Your task to perform on an android device: toggle translation in the chrome app Image 0: 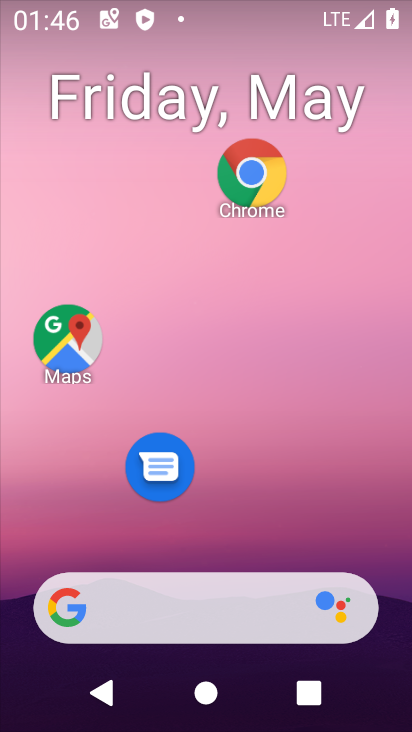
Step 0: press home button
Your task to perform on an android device: toggle translation in the chrome app Image 1: 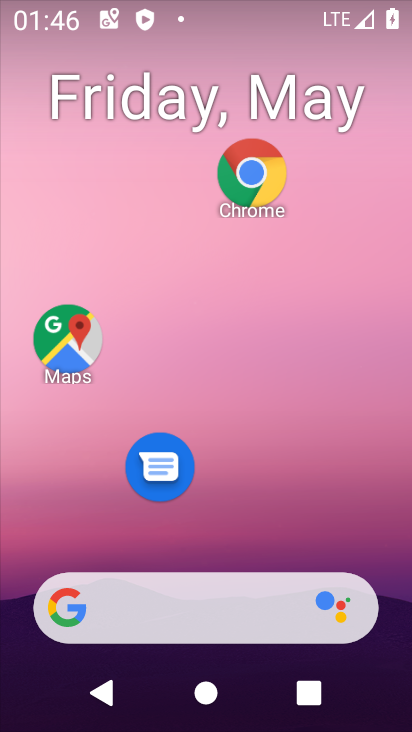
Step 1: drag from (255, 651) to (318, 246)
Your task to perform on an android device: toggle translation in the chrome app Image 2: 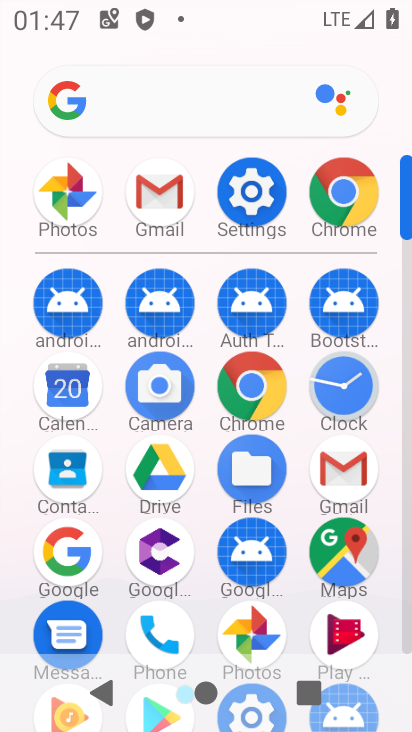
Step 2: click (270, 396)
Your task to perform on an android device: toggle translation in the chrome app Image 3: 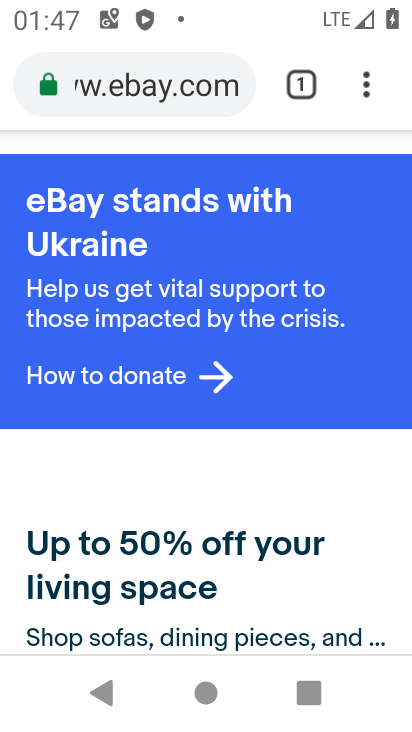
Step 3: click (357, 93)
Your task to perform on an android device: toggle translation in the chrome app Image 4: 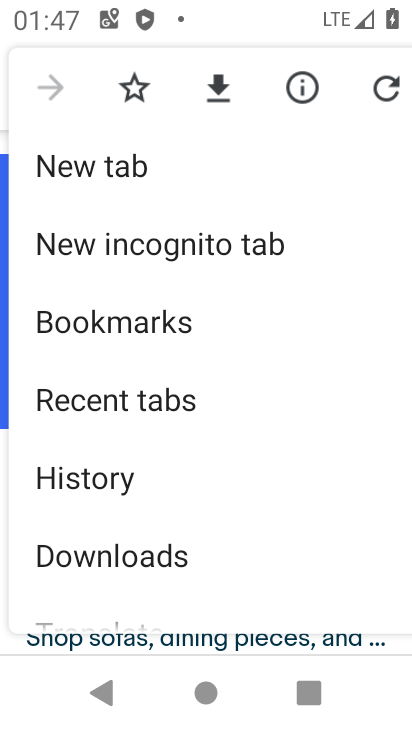
Step 4: drag from (244, 481) to (223, 318)
Your task to perform on an android device: toggle translation in the chrome app Image 5: 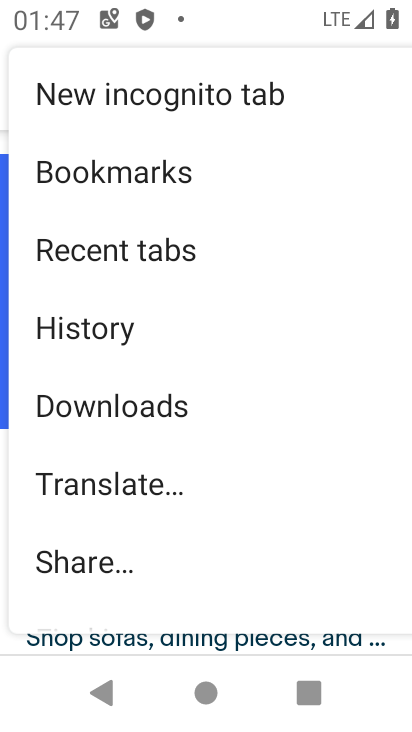
Step 5: drag from (211, 537) to (238, 426)
Your task to perform on an android device: toggle translation in the chrome app Image 6: 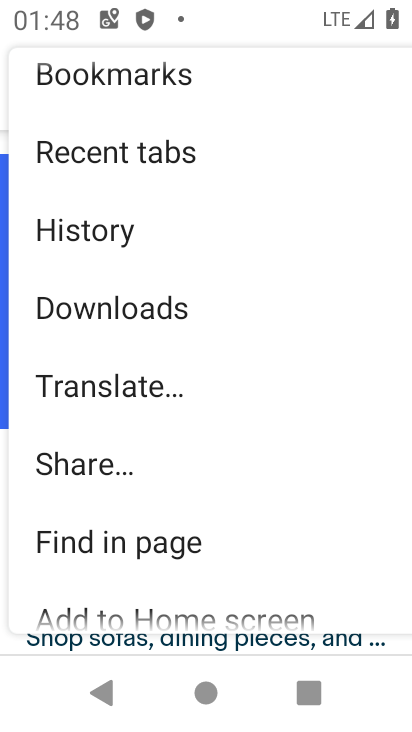
Step 6: drag from (237, 464) to (269, 341)
Your task to perform on an android device: toggle translation in the chrome app Image 7: 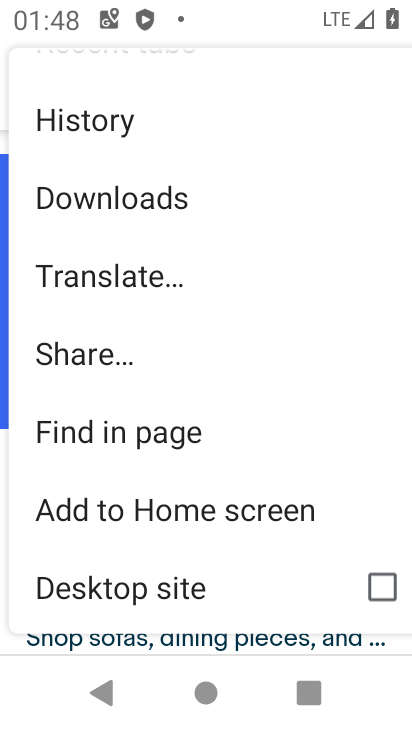
Step 7: drag from (178, 532) to (178, 361)
Your task to perform on an android device: toggle translation in the chrome app Image 8: 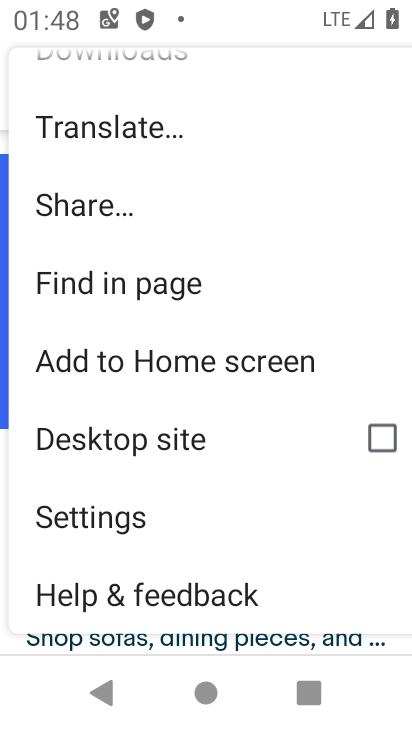
Step 8: click (138, 513)
Your task to perform on an android device: toggle translation in the chrome app Image 9: 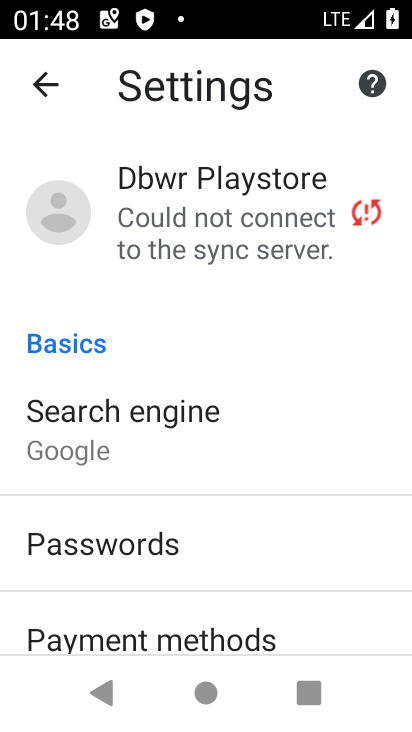
Step 9: drag from (148, 555) to (168, 343)
Your task to perform on an android device: toggle translation in the chrome app Image 10: 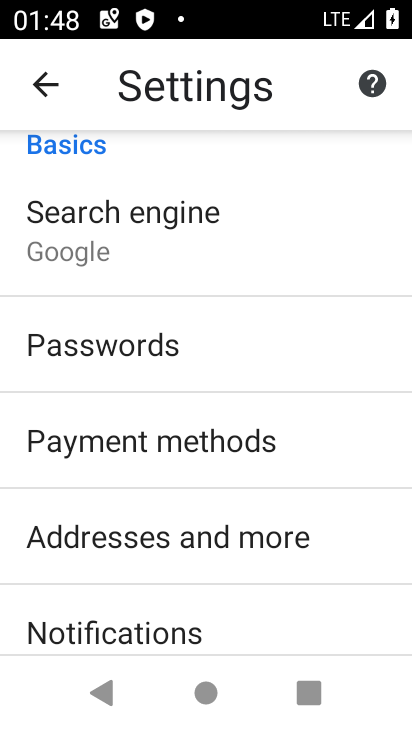
Step 10: drag from (200, 563) to (182, 424)
Your task to perform on an android device: toggle translation in the chrome app Image 11: 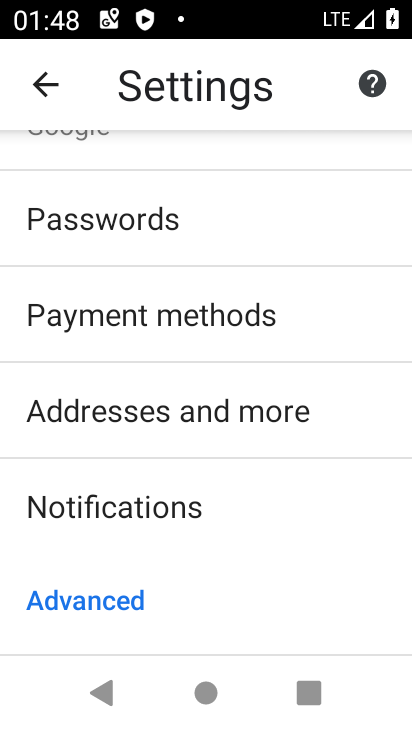
Step 11: drag from (212, 571) to (179, 407)
Your task to perform on an android device: toggle translation in the chrome app Image 12: 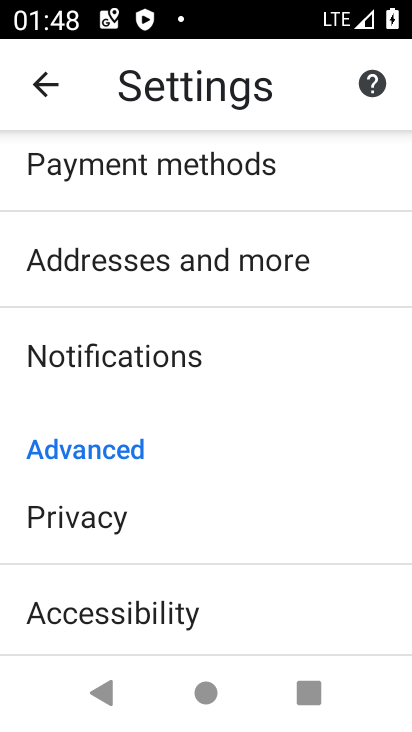
Step 12: drag from (154, 587) to (130, 350)
Your task to perform on an android device: toggle translation in the chrome app Image 13: 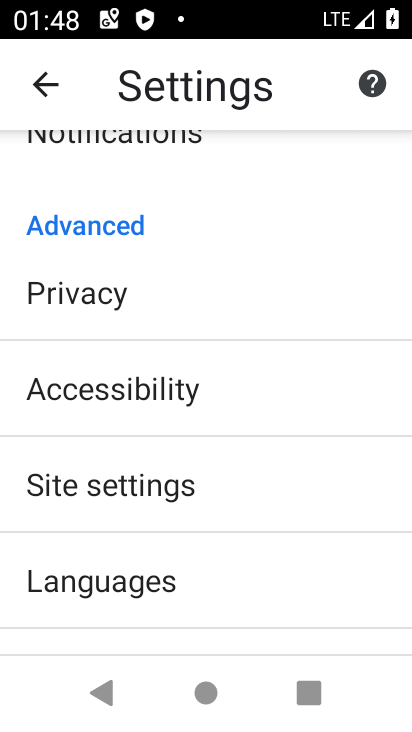
Step 13: click (135, 576)
Your task to perform on an android device: toggle translation in the chrome app Image 14: 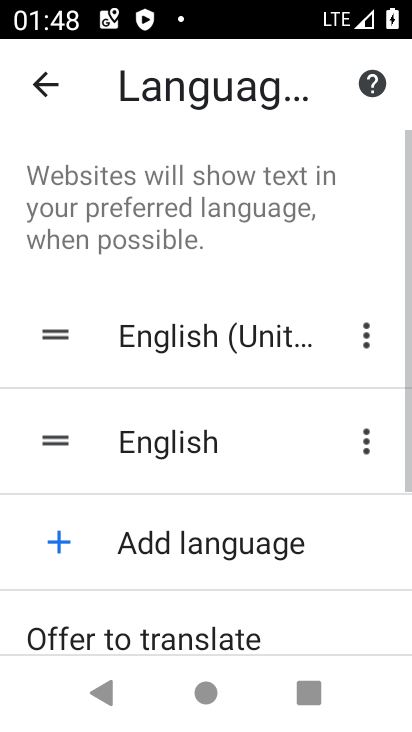
Step 14: drag from (255, 599) to (248, 353)
Your task to perform on an android device: toggle translation in the chrome app Image 15: 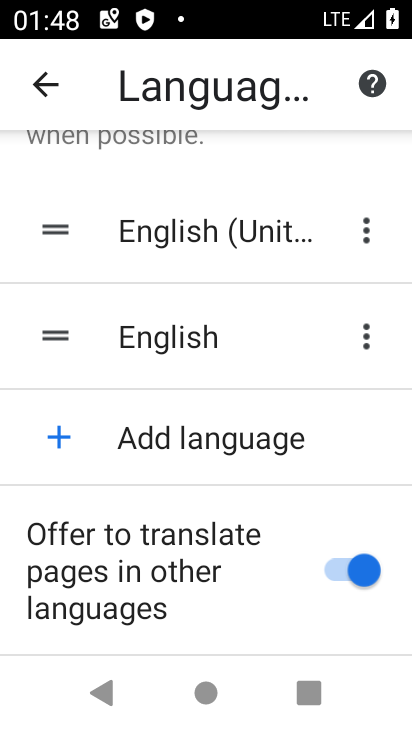
Step 15: click (334, 571)
Your task to perform on an android device: toggle translation in the chrome app Image 16: 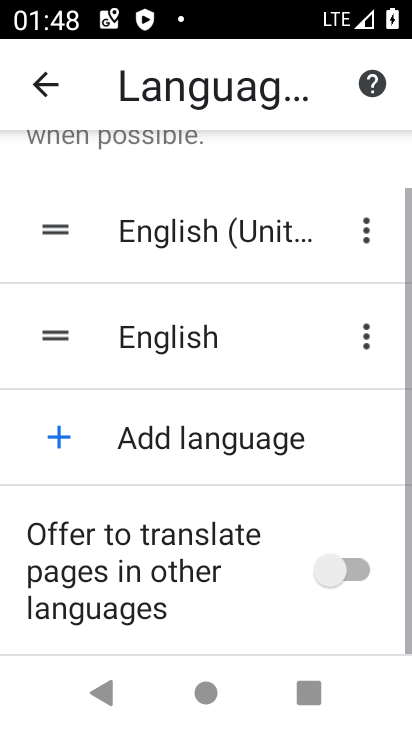
Step 16: click (334, 571)
Your task to perform on an android device: toggle translation in the chrome app Image 17: 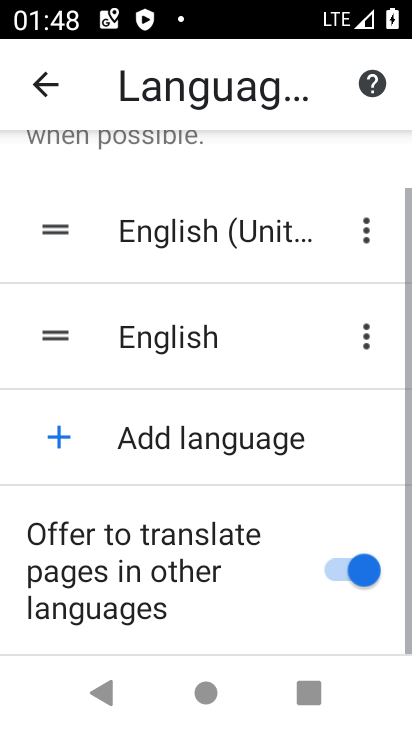
Step 17: task complete